Your task to perform on an android device: turn smart compose on in the gmail app Image 0: 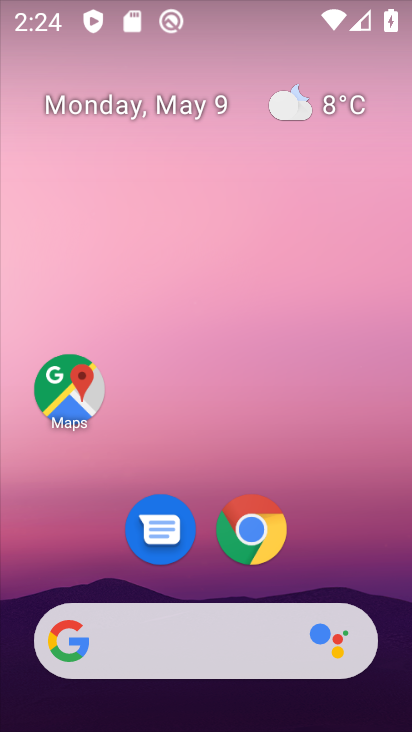
Step 0: drag from (276, 694) to (211, 2)
Your task to perform on an android device: turn smart compose on in the gmail app Image 1: 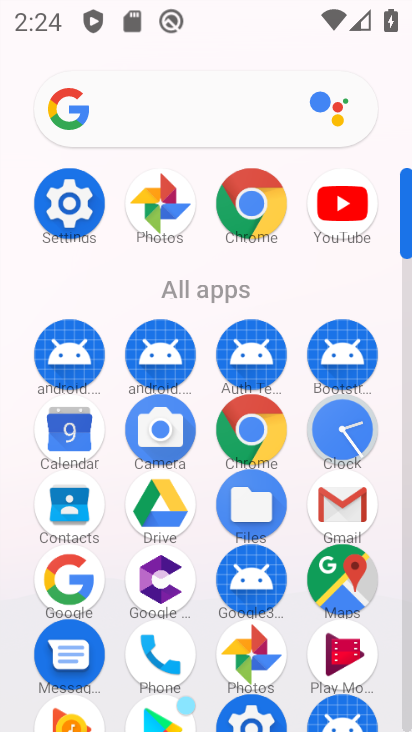
Step 1: click (342, 520)
Your task to perform on an android device: turn smart compose on in the gmail app Image 2: 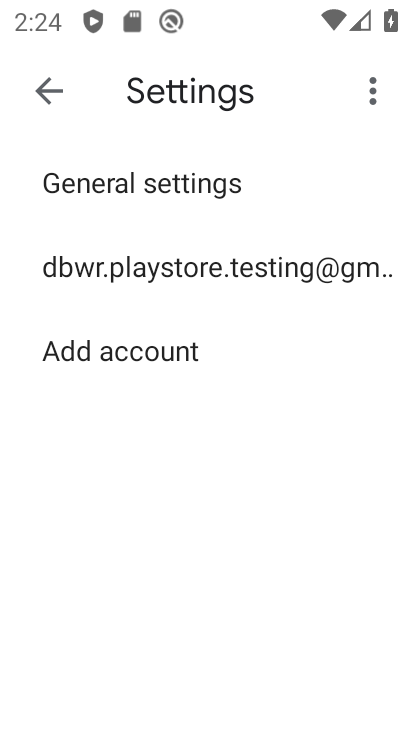
Step 2: click (313, 279)
Your task to perform on an android device: turn smart compose on in the gmail app Image 3: 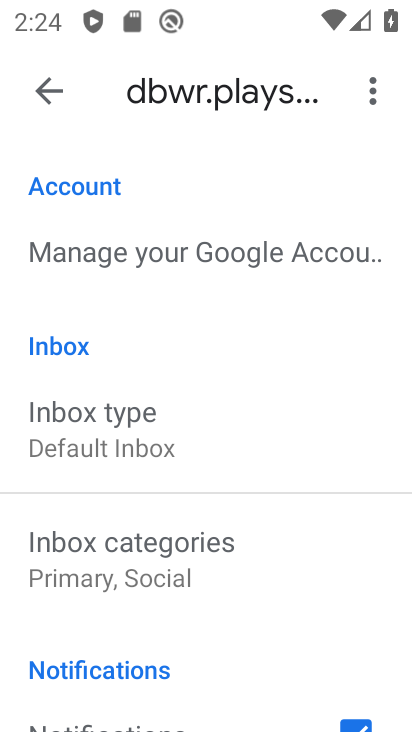
Step 3: task complete